Your task to perform on an android device: Open calendar and show me the third week of next month Image 0: 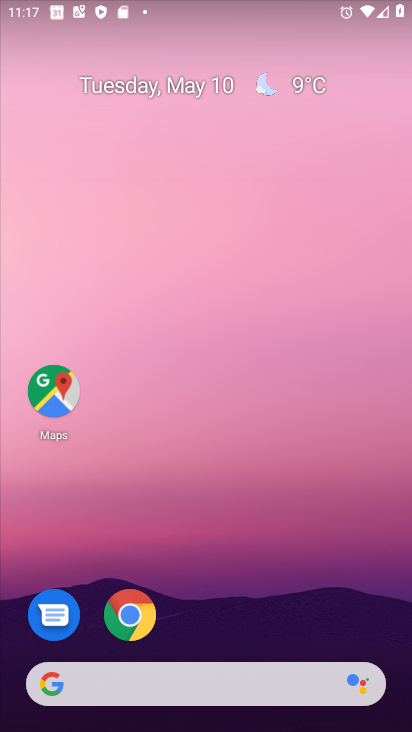
Step 0: press home button
Your task to perform on an android device: Open calendar and show me the third week of next month Image 1: 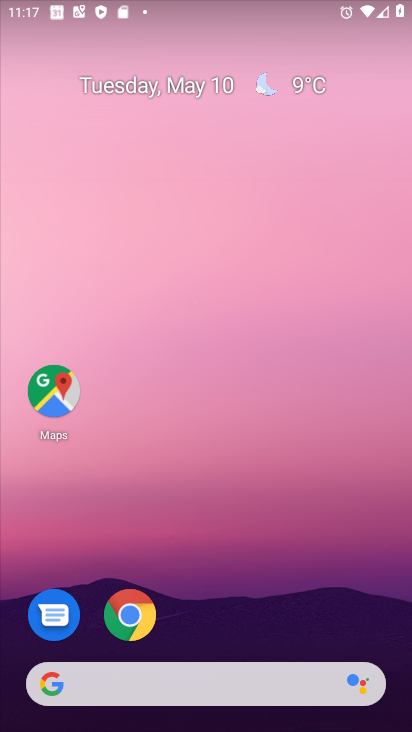
Step 1: drag from (224, 645) to (251, 292)
Your task to perform on an android device: Open calendar and show me the third week of next month Image 2: 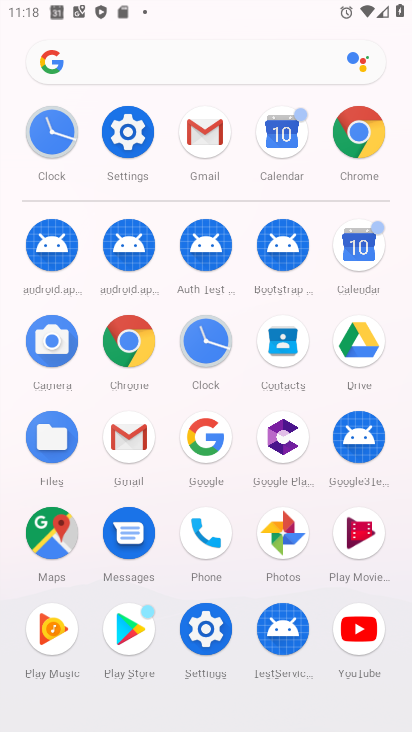
Step 2: click (360, 243)
Your task to perform on an android device: Open calendar and show me the third week of next month Image 3: 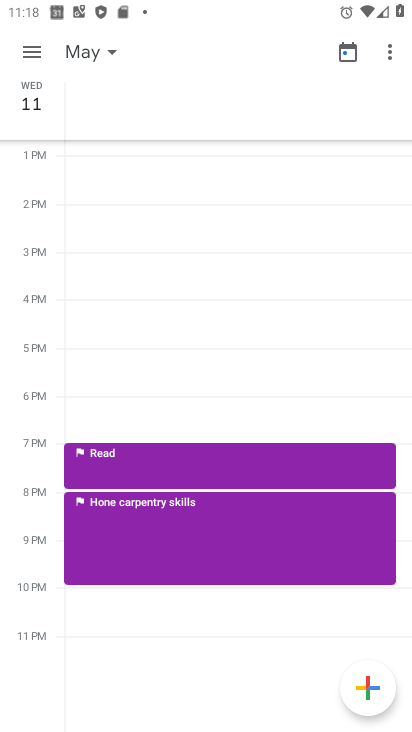
Step 3: click (37, 105)
Your task to perform on an android device: Open calendar and show me the third week of next month Image 4: 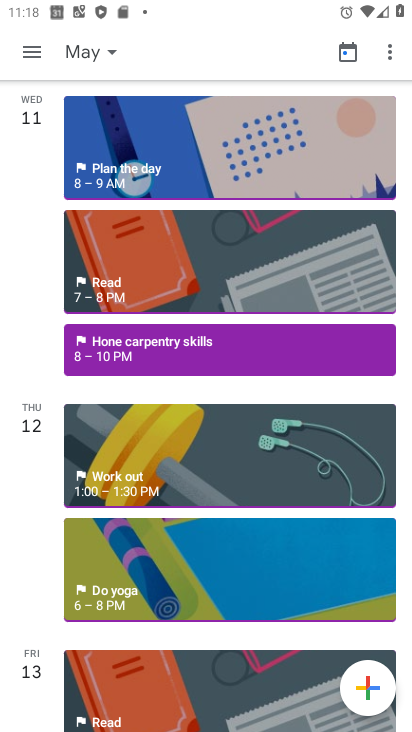
Step 4: click (24, 55)
Your task to perform on an android device: Open calendar and show me the third week of next month Image 5: 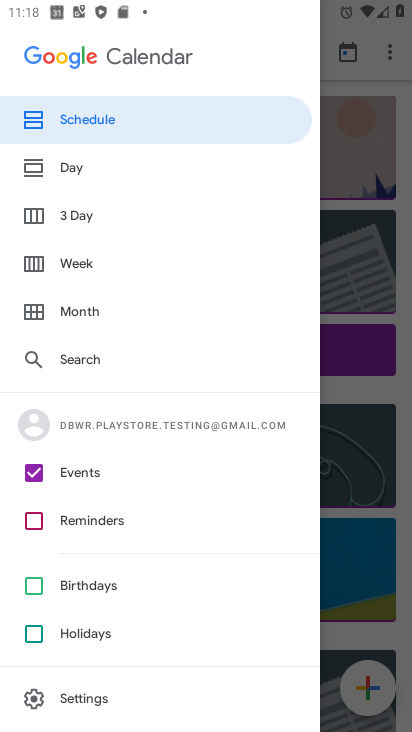
Step 5: click (68, 258)
Your task to perform on an android device: Open calendar and show me the third week of next month Image 6: 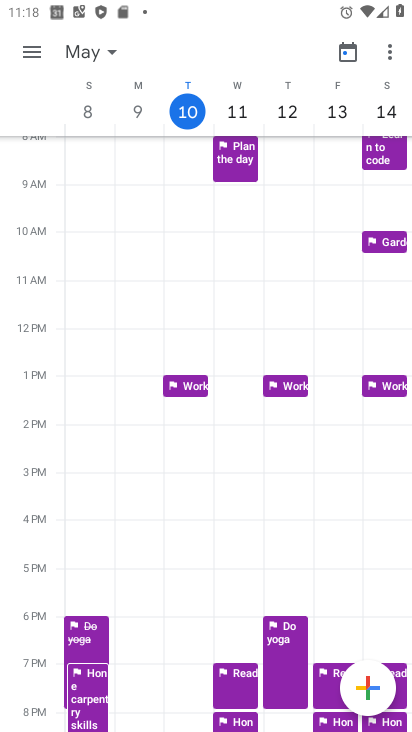
Step 6: drag from (389, 109) to (160, 110)
Your task to perform on an android device: Open calendar and show me the third week of next month Image 7: 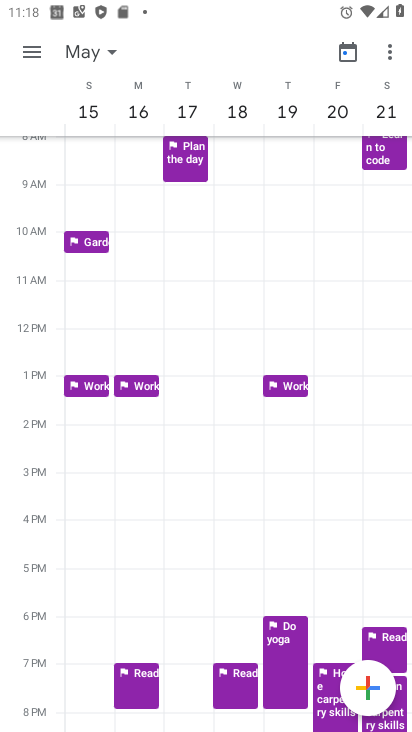
Step 7: drag from (378, 112) to (103, 125)
Your task to perform on an android device: Open calendar and show me the third week of next month Image 8: 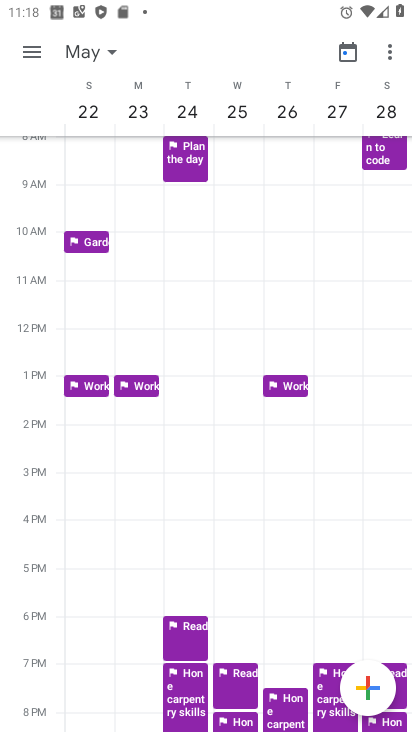
Step 8: drag from (384, 108) to (46, 90)
Your task to perform on an android device: Open calendar and show me the third week of next month Image 9: 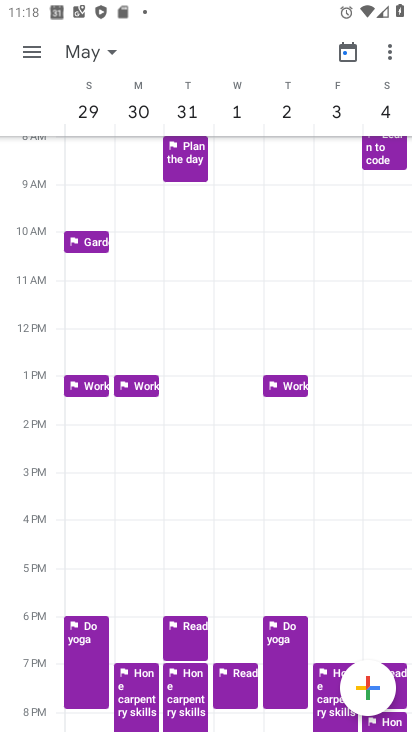
Step 9: drag from (365, 113) to (62, 120)
Your task to perform on an android device: Open calendar and show me the third week of next month Image 10: 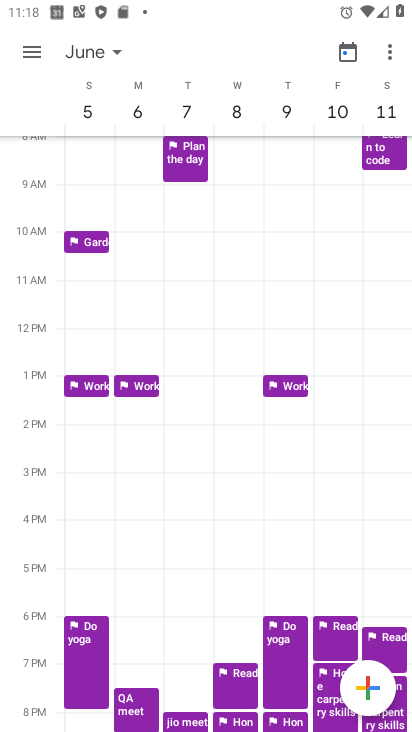
Step 10: drag from (387, 117) to (79, 96)
Your task to perform on an android device: Open calendar and show me the third week of next month Image 11: 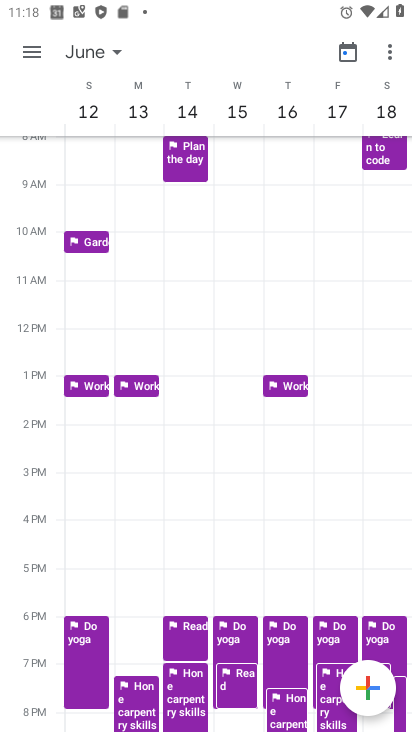
Step 11: click (83, 103)
Your task to perform on an android device: Open calendar and show me the third week of next month Image 12: 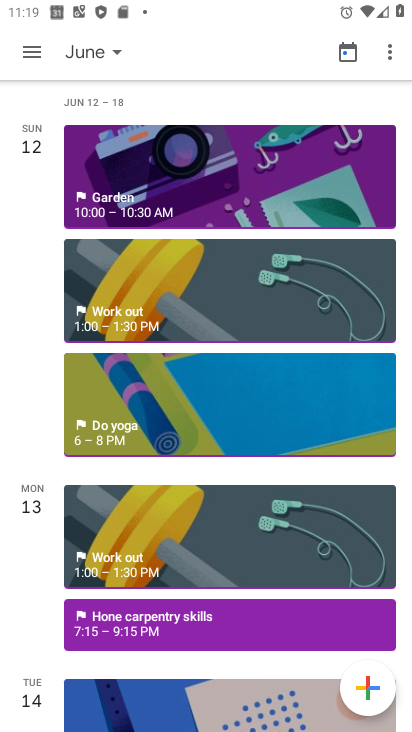
Step 12: task complete